Your task to perform on an android device: Play the last video I watched on Youtube Image 0: 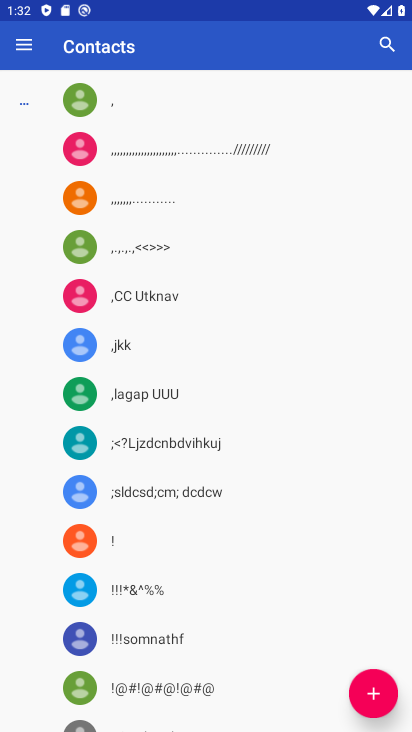
Step 0: press home button
Your task to perform on an android device: Play the last video I watched on Youtube Image 1: 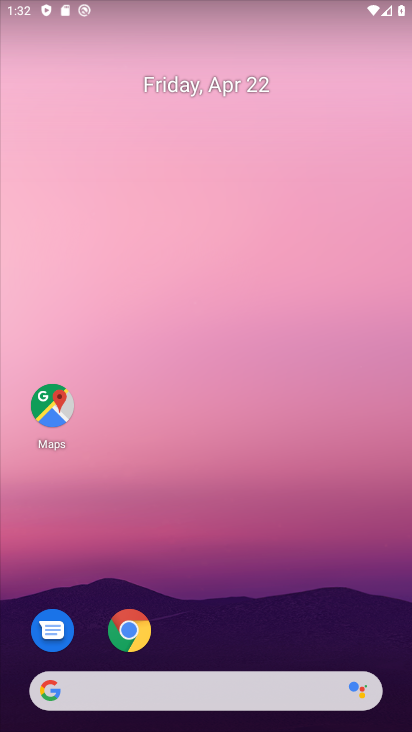
Step 1: drag from (208, 566) to (263, 178)
Your task to perform on an android device: Play the last video I watched on Youtube Image 2: 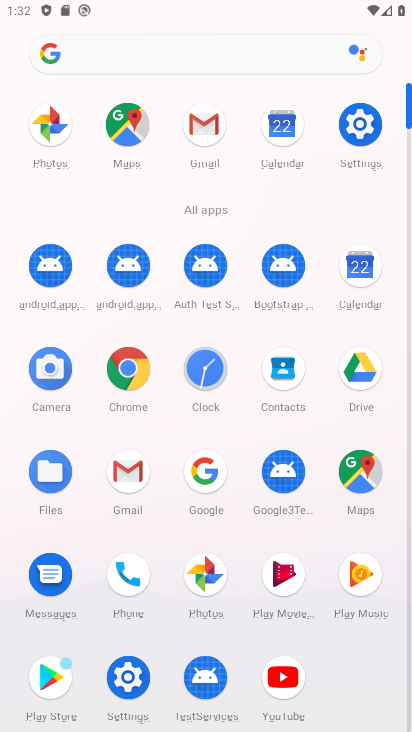
Step 2: click (285, 674)
Your task to perform on an android device: Play the last video I watched on Youtube Image 3: 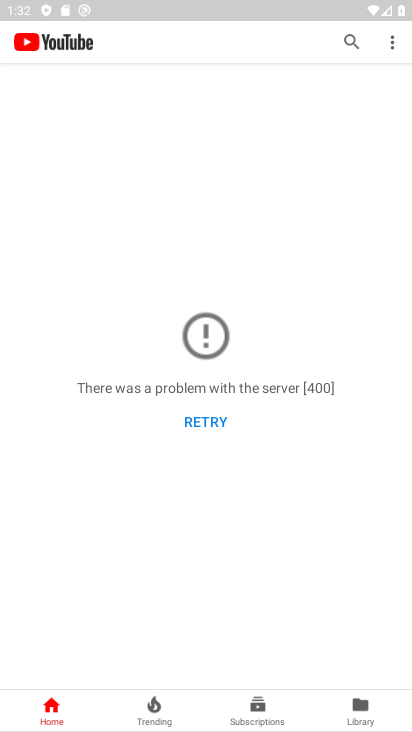
Step 3: click (361, 700)
Your task to perform on an android device: Play the last video I watched on Youtube Image 4: 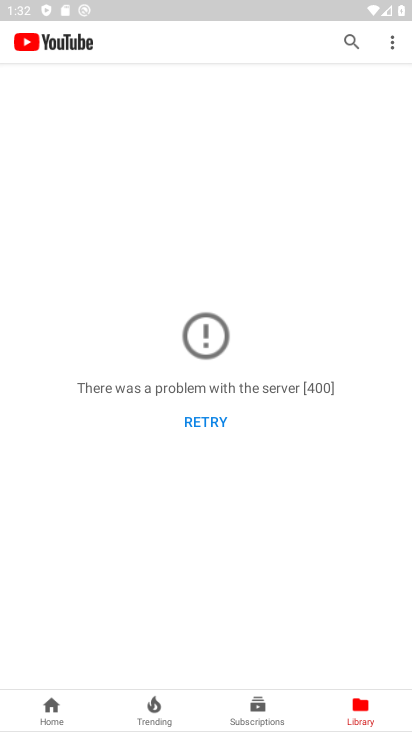
Step 4: click (206, 418)
Your task to perform on an android device: Play the last video I watched on Youtube Image 5: 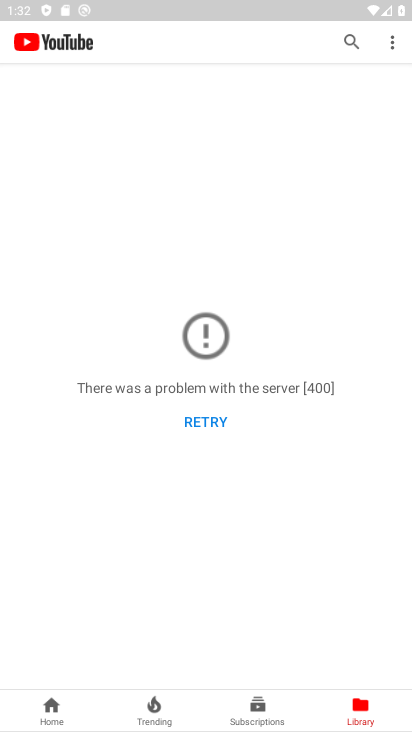
Step 5: click (206, 418)
Your task to perform on an android device: Play the last video I watched on Youtube Image 6: 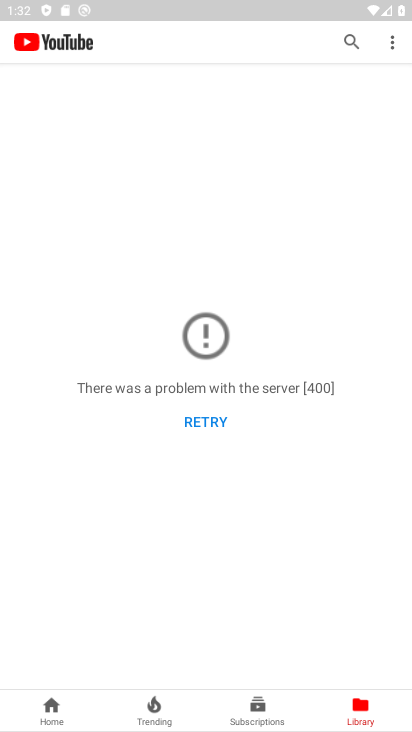
Step 6: click (206, 418)
Your task to perform on an android device: Play the last video I watched on Youtube Image 7: 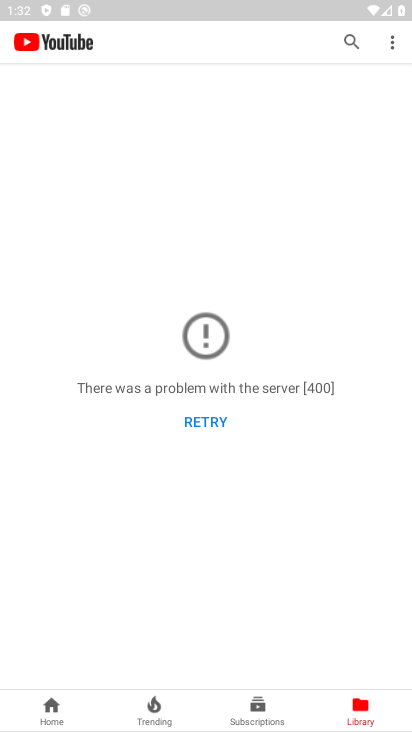
Step 7: task complete